Your task to perform on an android device: Go to Android settings Image 0: 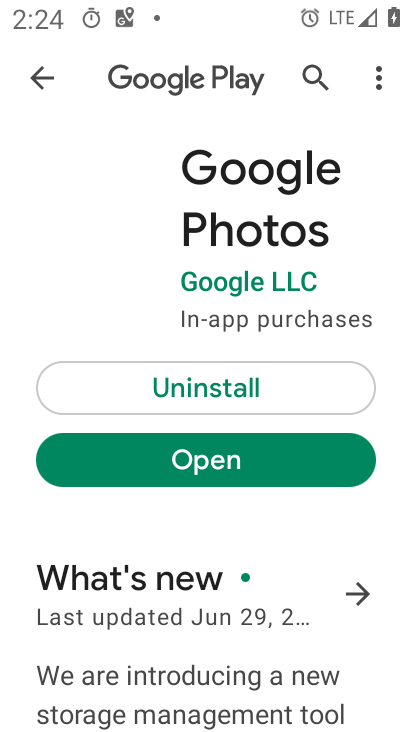
Step 0: press home button
Your task to perform on an android device: Go to Android settings Image 1: 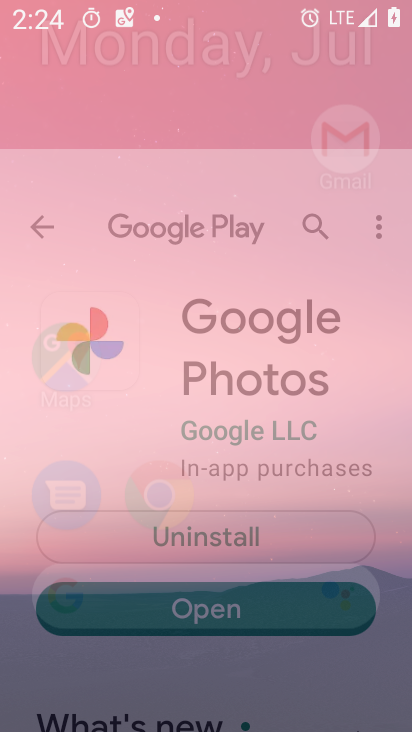
Step 1: press home button
Your task to perform on an android device: Go to Android settings Image 2: 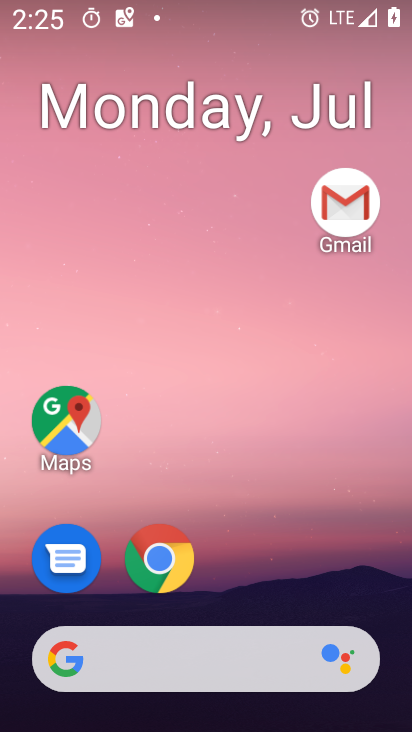
Step 2: drag from (291, 576) to (296, 83)
Your task to perform on an android device: Go to Android settings Image 3: 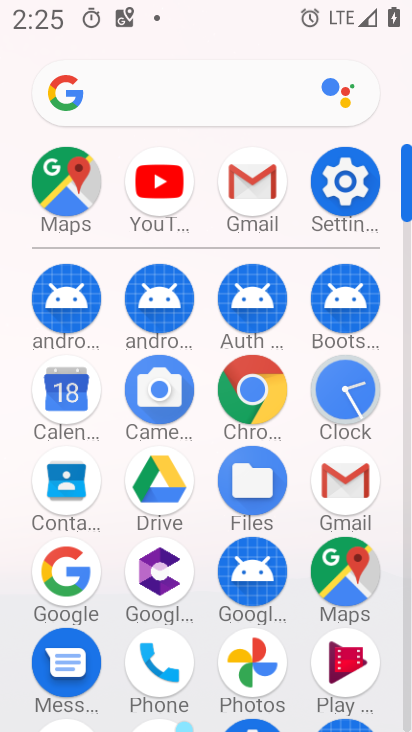
Step 3: click (354, 187)
Your task to perform on an android device: Go to Android settings Image 4: 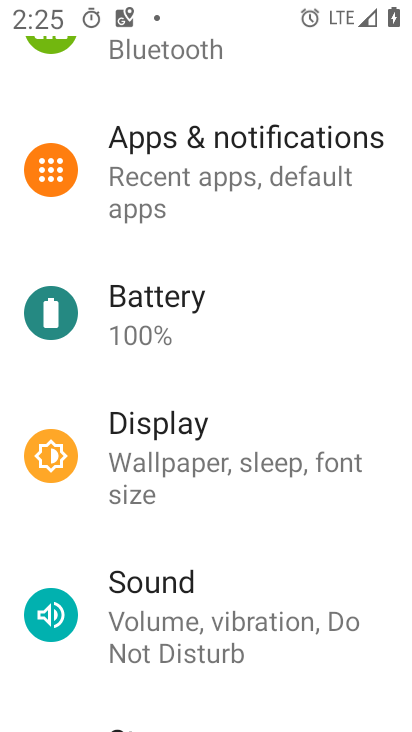
Step 4: drag from (335, 385) to (338, 237)
Your task to perform on an android device: Go to Android settings Image 5: 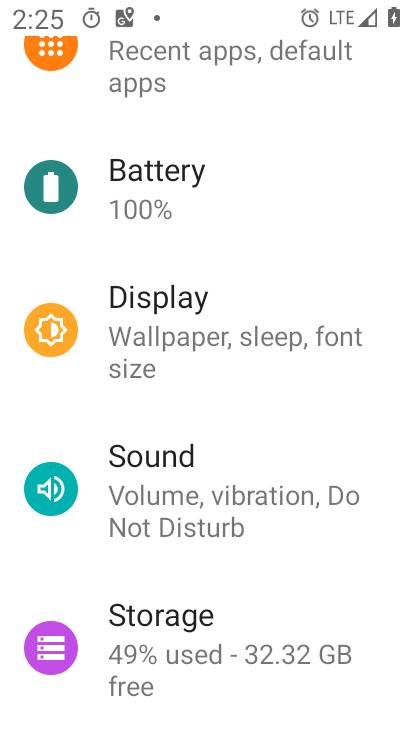
Step 5: drag from (337, 404) to (337, 323)
Your task to perform on an android device: Go to Android settings Image 6: 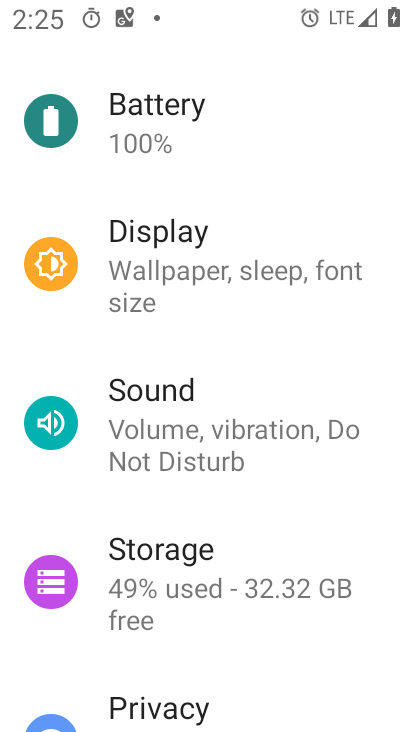
Step 6: drag from (347, 510) to (355, 299)
Your task to perform on an android device: Go to Android settings Image 7: 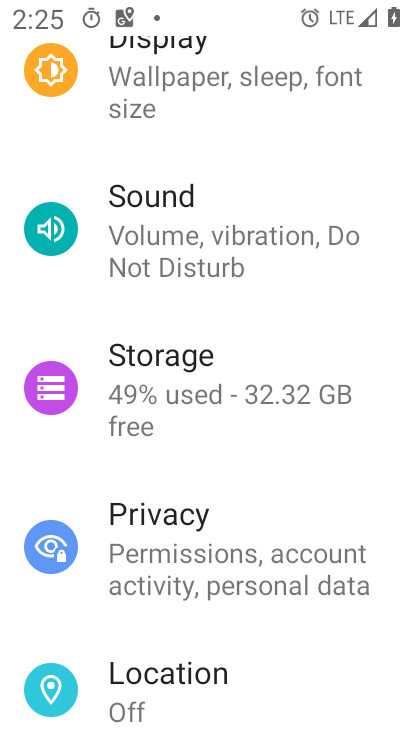
Step 7: drag from (344, 453) to (332, 321)
Your task to perform on an android device: Go to Android settings Image 8: 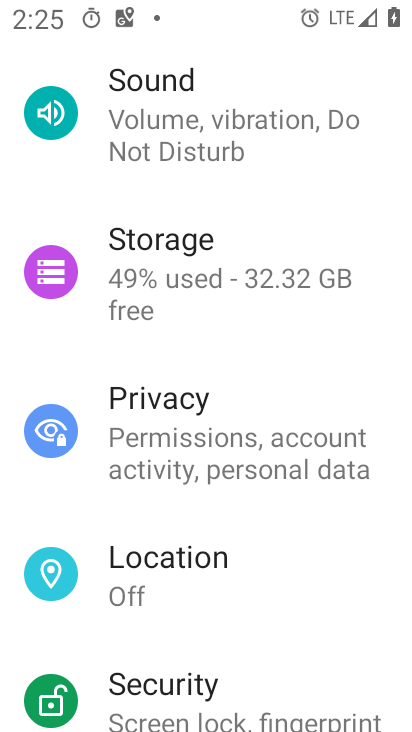
Step 8: drag from (351, 523) to (341, 386)
Your task to perform on an android device: Go to Android settings Image 9: 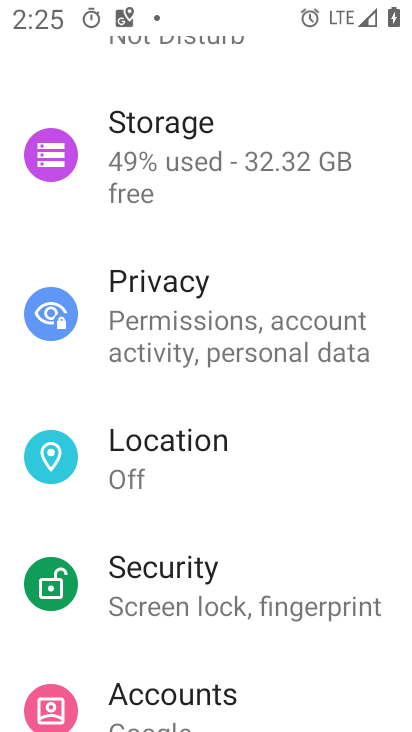
Step 9: drag from (340, 530) to (336, 401)
Your task to perform on an android device: Go to Android settings Image 10: 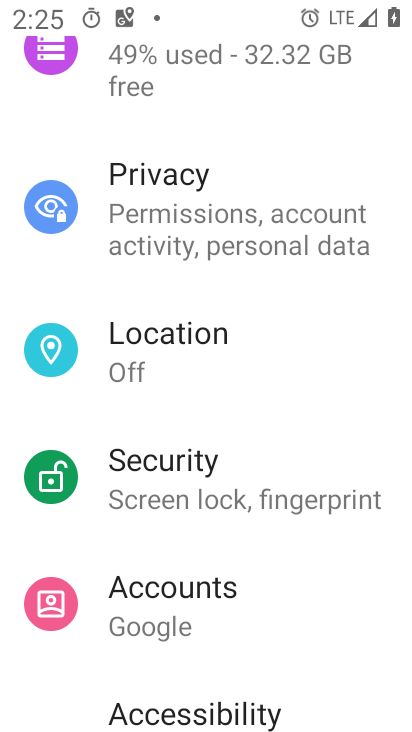
Step 10: drag from (343, 564) to (336, 417)
Your task to perform on an android device: Go to Android settings Image 11: 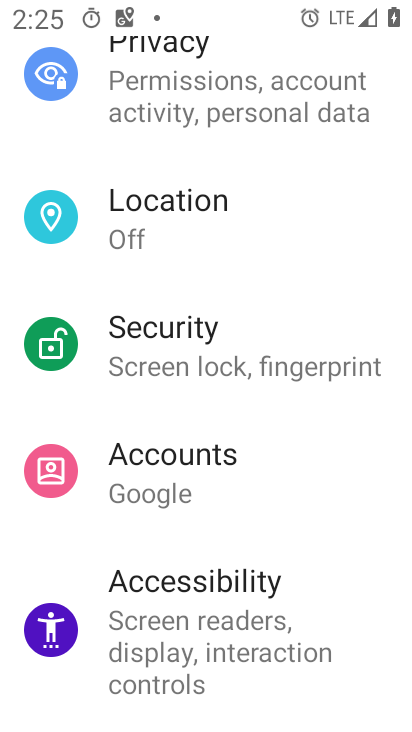
Step 11: drag from (324, 535) to (319, 351)
Your task to perform on an android device: Go to Android settings Image 12: 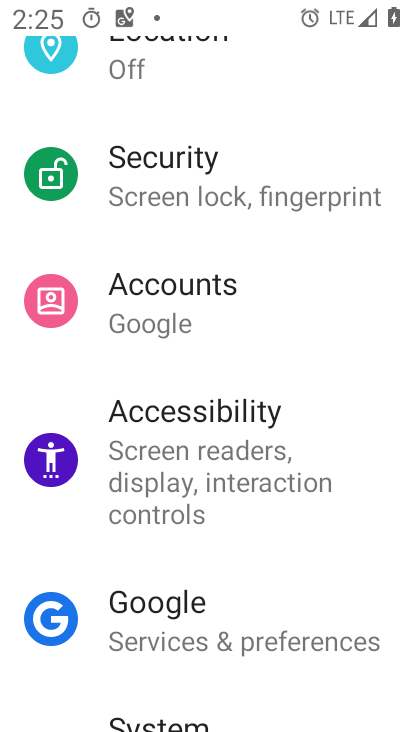
Step 12: drag from (320, 551) to (322, 402)
Your task to perform on an android device: Go to Android settings Image 13: 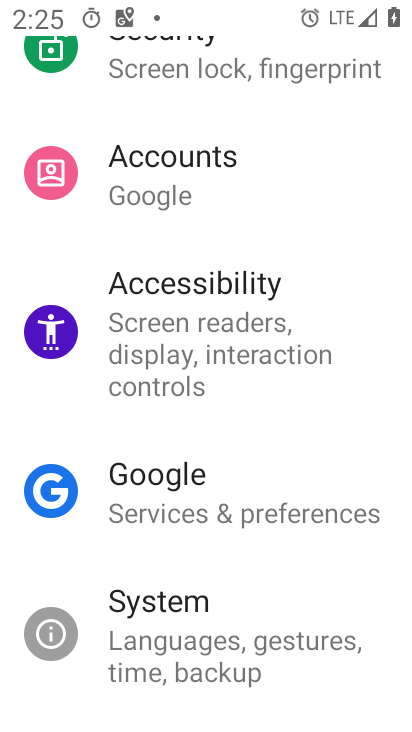
Step 13: drag from (328, 586) to (329, 446)
Your task to perform on an android device: Go to Android settings Image 14: 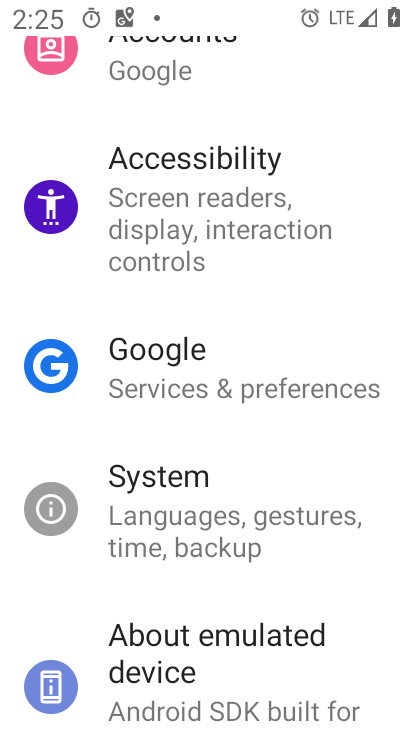
Step 14: click (307, 489)
Your task to perform on an android device: Go to Android settings Image 15: 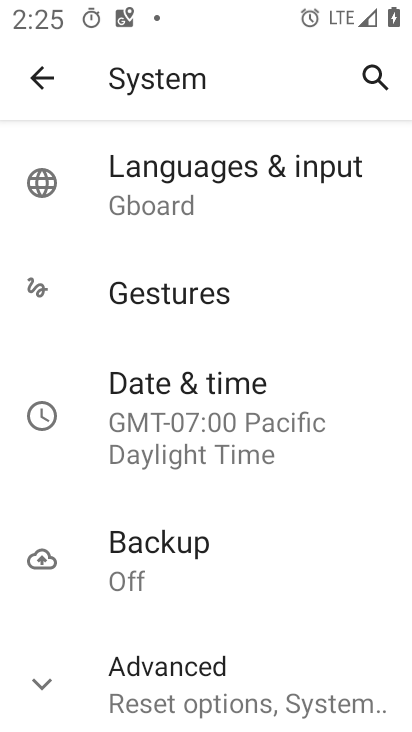
Step 15: click (313, 595)
Your task to perform on an android device: Go to Android settings Image 16: 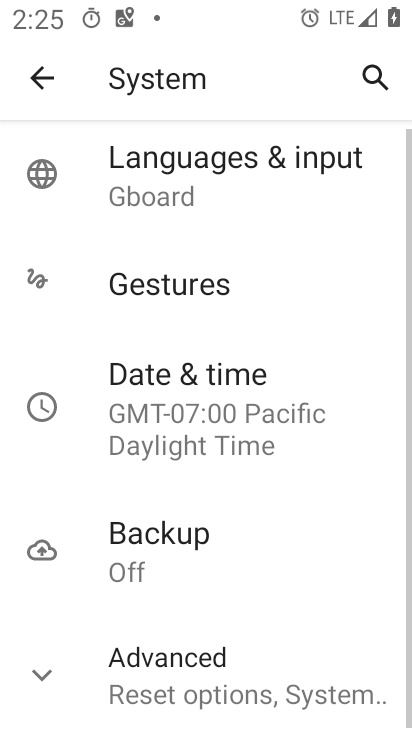
Step 16: click (284, 680)
Your task to perform on an android device: Go to Android settings Image 17: 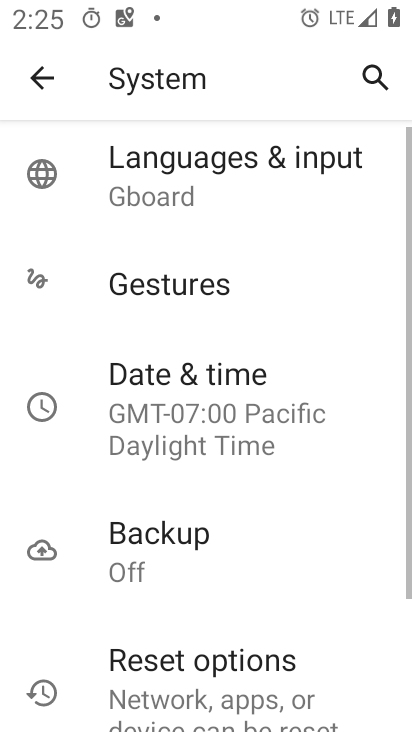
Step 17: task complete